Your task to perform on an android device: Go to notification settings Image 0: 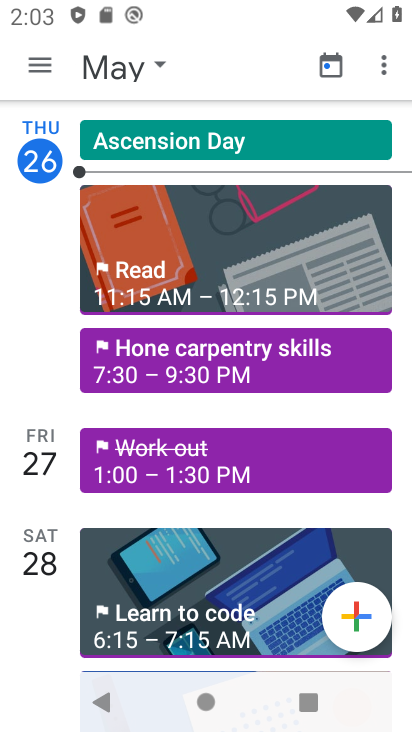
Step 0: press home button
Your task to perform on an android device: Go to notification settings Image 1: 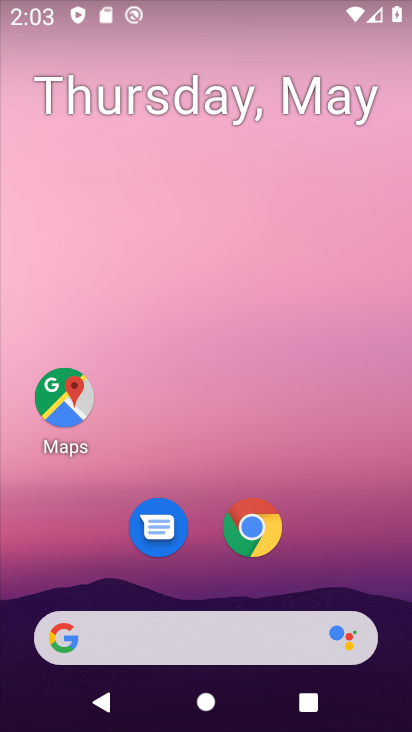
Step 1: drag from (144, 409) to (167, 189)
Your task to perform on an android device: Go to notification settings Image 2: 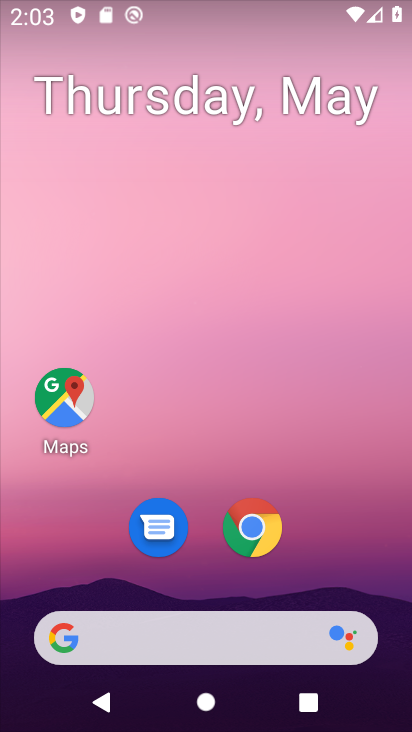
Step 2: drag from (91, 569) to (15, 182)
Your task to perform on an android device: Go to notification settings Image 3: 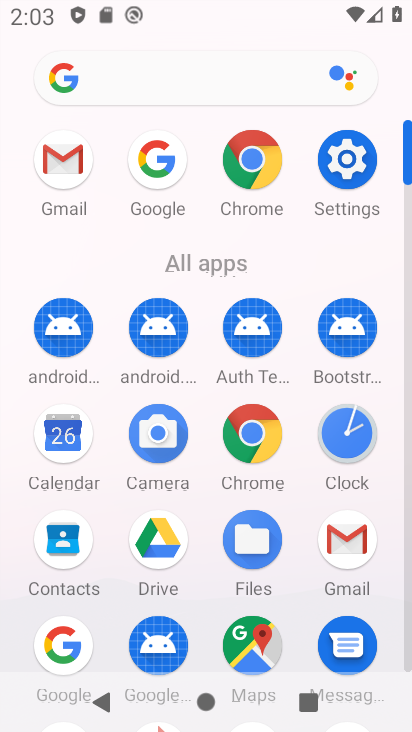
Step 3: click (366, 179)
Your task to perform on an android device: Go to notification settings Image 4: 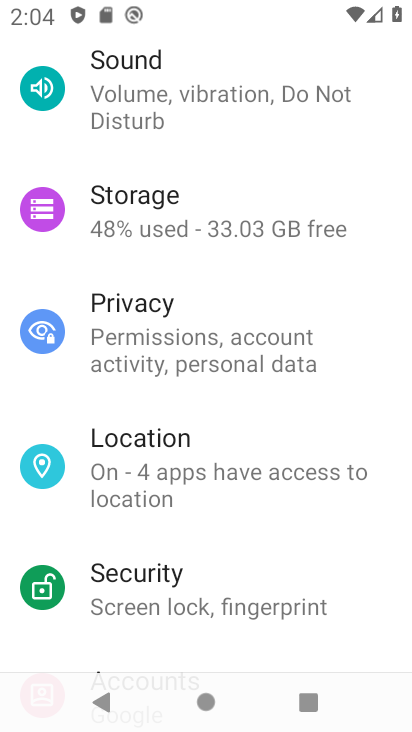
Step 4: drag from (160, 501) to (194, 719)
Your task to perform on an android device: Go to notification settings Image 5: 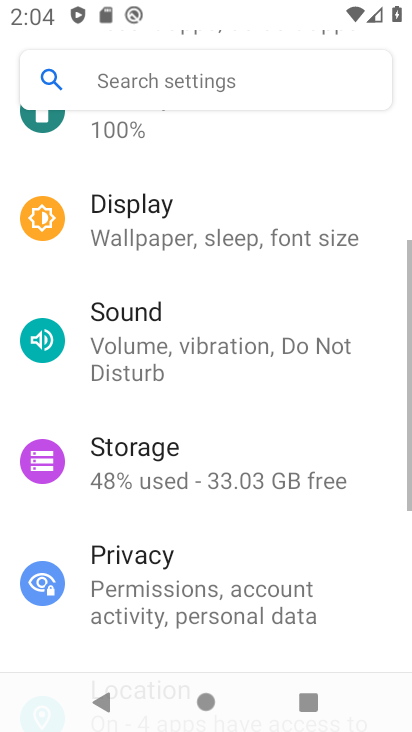
Step 5: drag from (188, 208) to (181, 724)
Your task to perform on an android device: Go to notification settings Image 6: 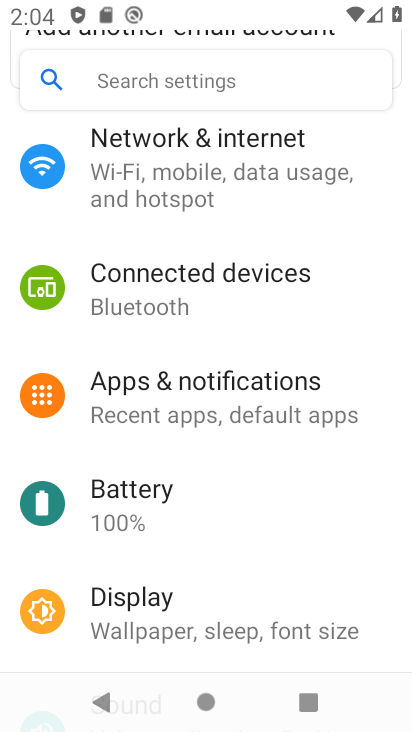
Step 6: click (175, 431)
Your task to perform on an android device: Go to notification settings Image 7: 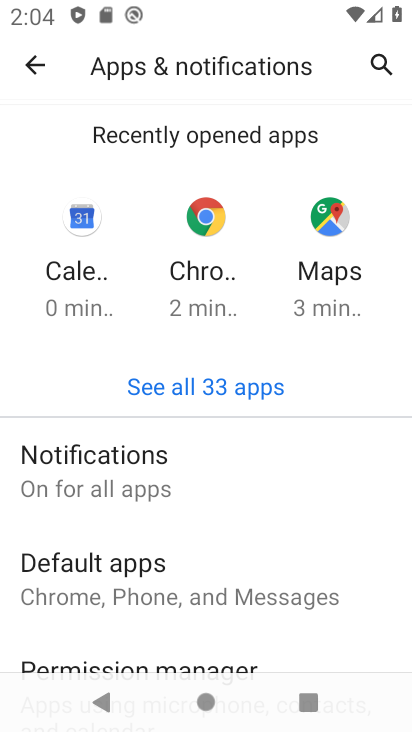
Step 7: task complete